Your task to perform on an android device: turn on location history Image 0: 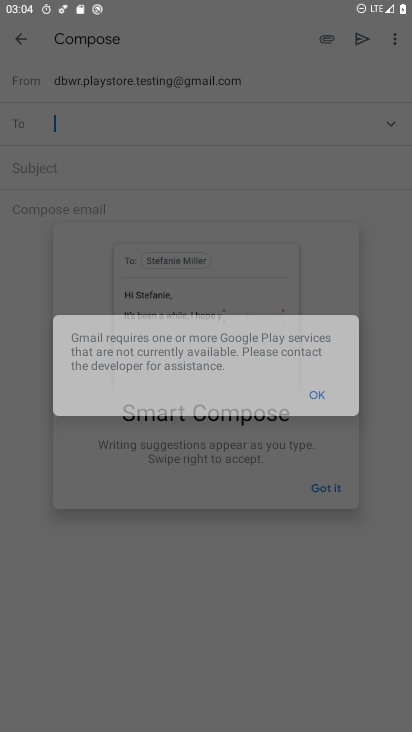
Step 0: drag from (409, 728) to (398, 340)
Your task to perform on an android device: turn on location history Image 1: 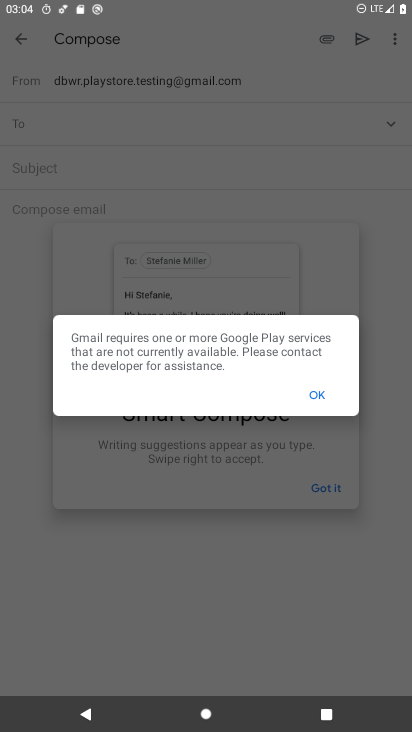
Step 1: press home button
Your task to perform on an android device: turn on location history Image 2: 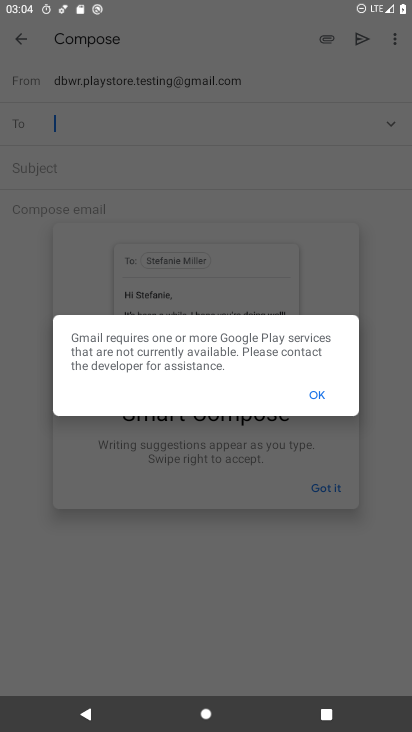
Step 2: drag from (398, 340) to (396, 625)
Your task to perform on an android device: turn on location history Image 3: 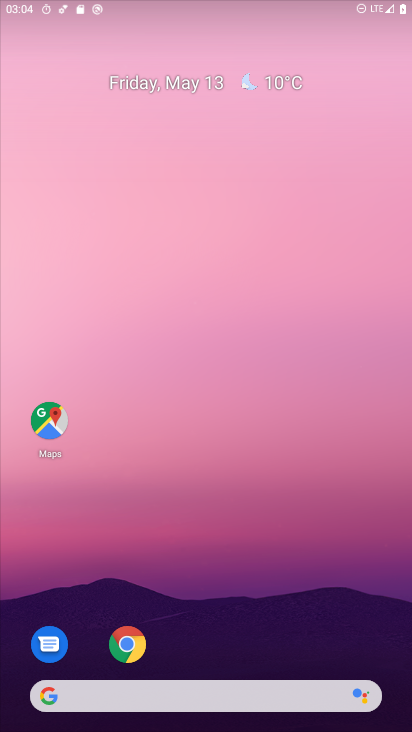
Step 3: drag from (280, 705) to (398, 699)
Your task to perform on an android device: turn on location history Image 4: 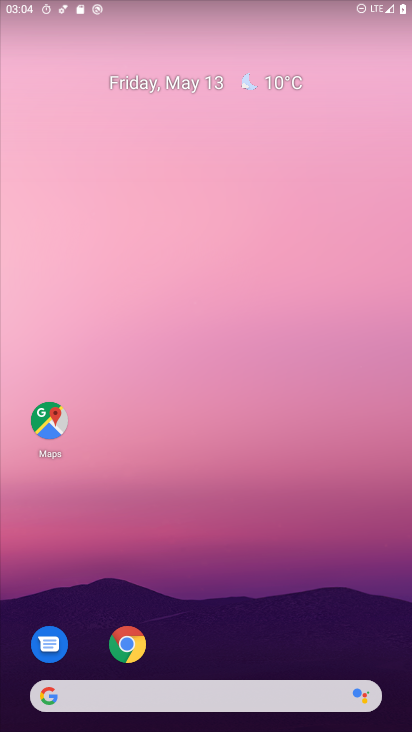
Step 4: drag from (257, 716) to (336, 0)
Your task to perform on an android device: turn on location history Image 5: 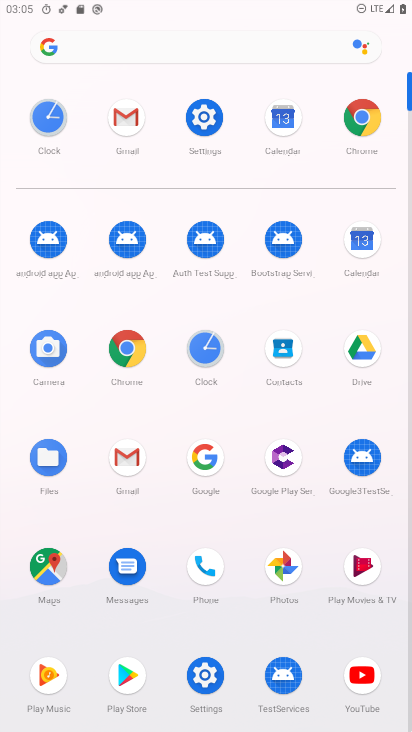
Step 5: click (204, 127)
Your task to perform on an android device: turn on location history Image 6: 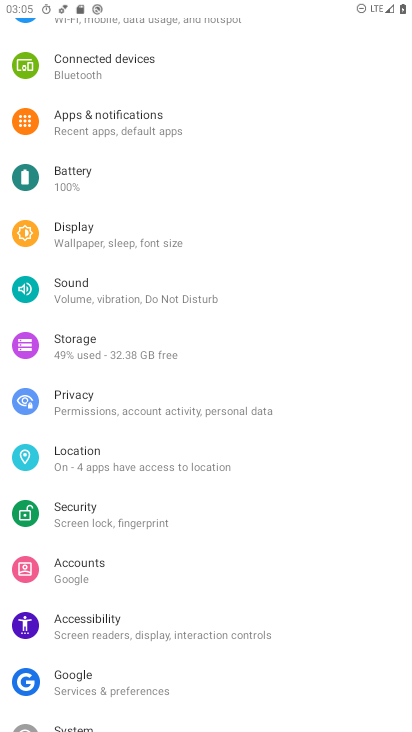
Step 6: click (137, 466)
Your task to perform on an android device: turn on location history Image 7: 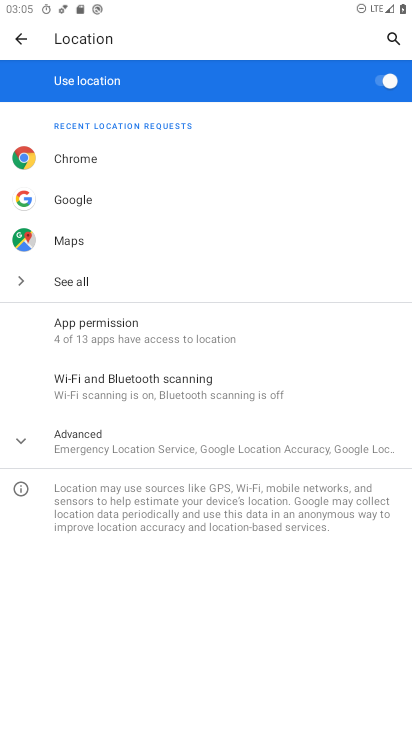
Step 7: click (168, 442)
Your task to perform on an android device: turn on location history Image 8: 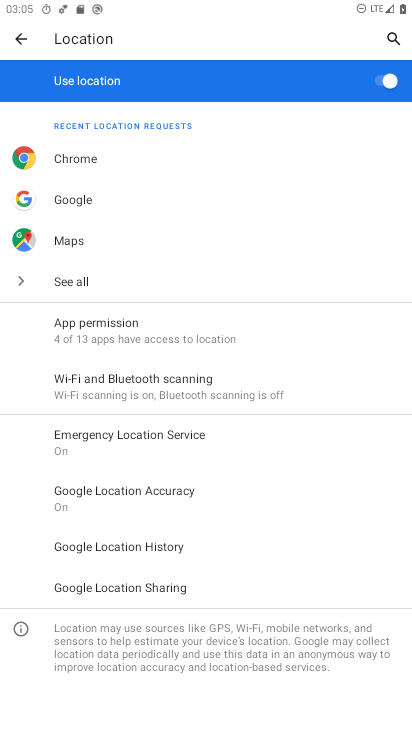
Step 8: click (159, 552)
Your task to perform on an android device: turn on location history Image 9: 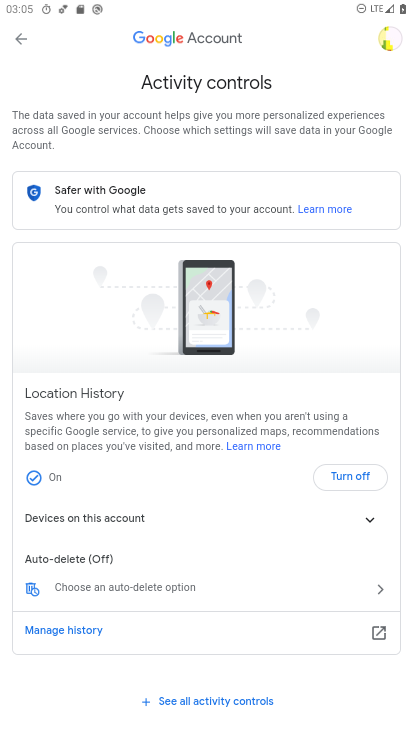
Step 9: task complete